Your task to perform on an android device: Open Chrome and go to settings Image 0: 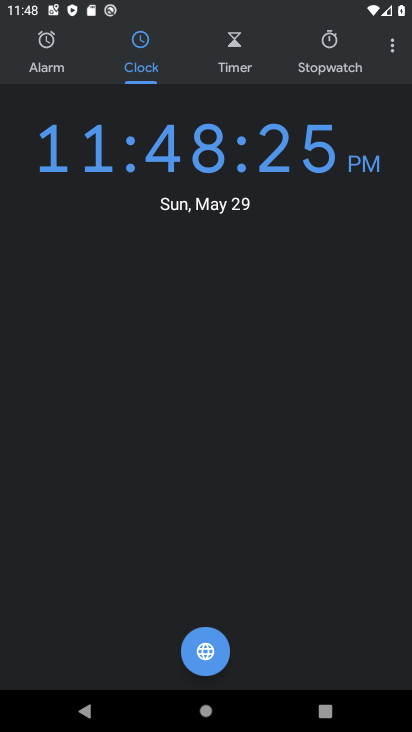
Step 0: press home button
Your task to perform on an android device: Open Chrome and go to settings Image 1: 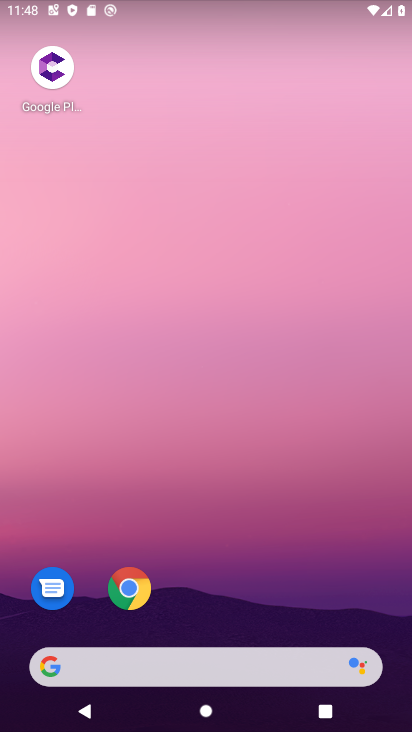
Step 1: drag from (243, 606) to (324, 2)
Your task to perform on an android device: Open Chrome and go to settings Image 2: 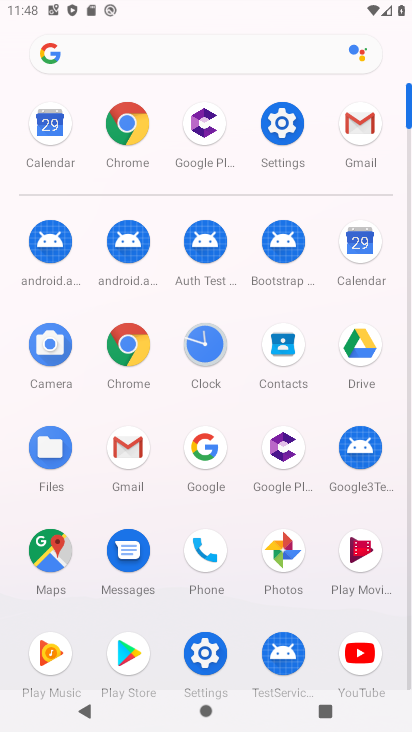
Step 2: click (264, 119)
Your task to perform on an android device: Open Chrome and go to settings Image 3: 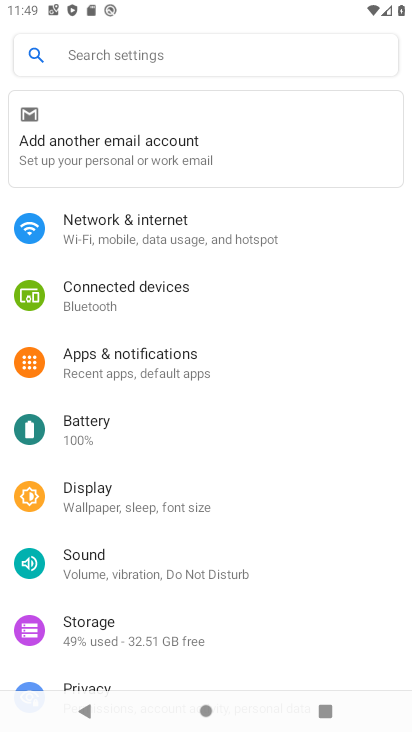
Step 3: press home button
Your task to perform on an android device: Open Chrome and go to settings Image 4: 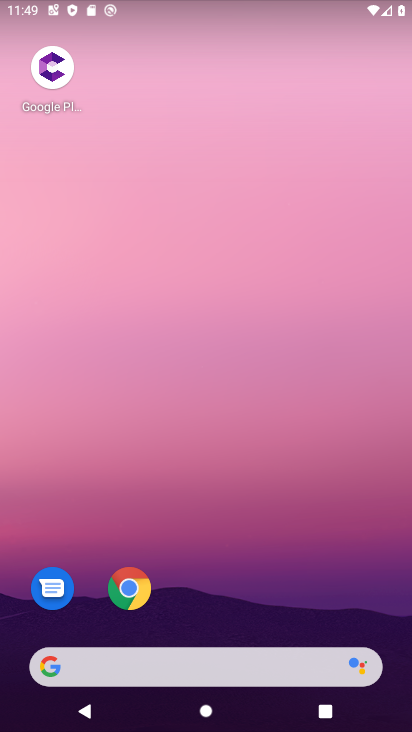
Step 4: drag from (303, 538) to (374, 43)
Your task to perform on an android device: Open Chrome and go to settings Image 5: 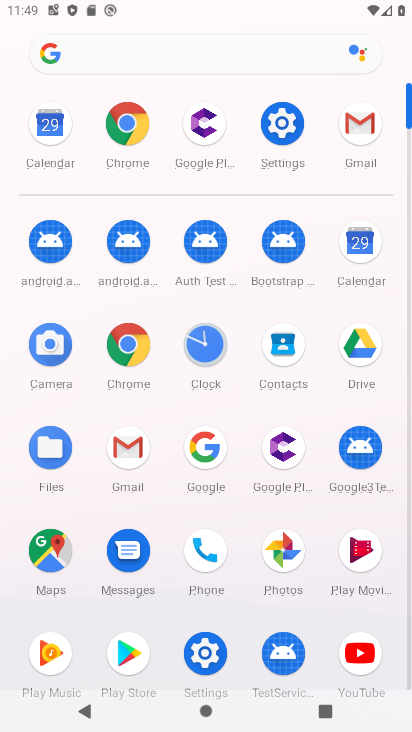
Step 5: click (128, 135)
Your task to perform on an android device: Open Chrome and go to settings Image 6: 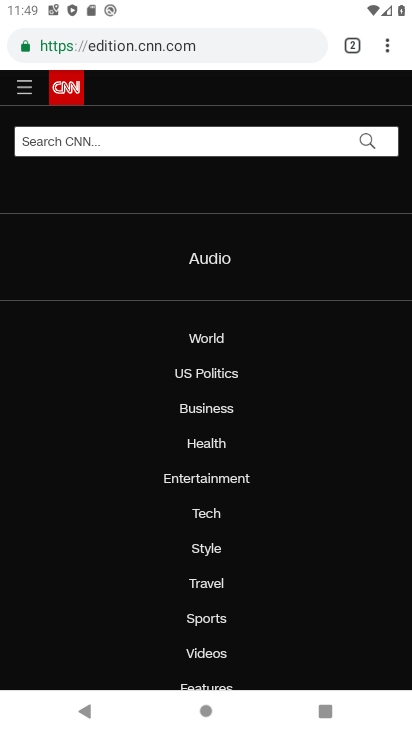
Step 6: task complete